Your task to perform on an android device: Open calendar and show me the first week of next month Image 0: 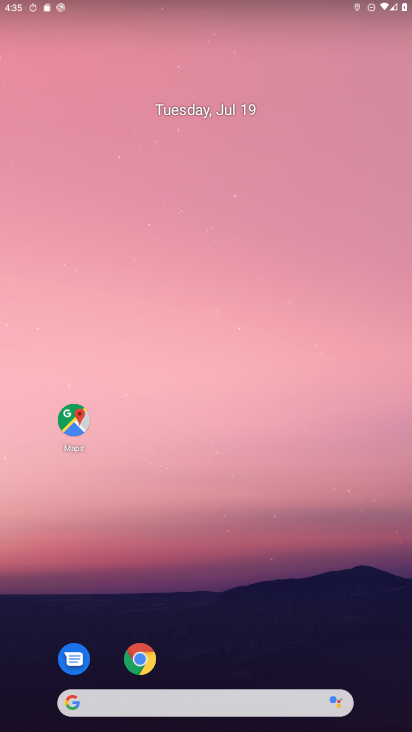
Step 0: drag from (236, 624) to (337, 40)
Your task to perform on an android device: Open calendar and show me the first week of next month Image 1: 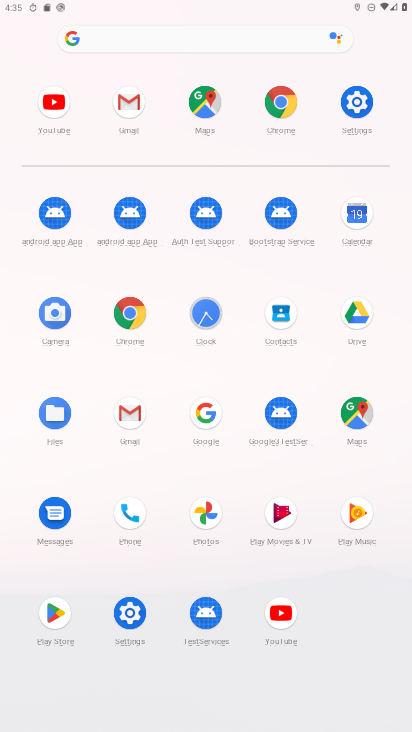
Step 1: click (358, 222)
Your task to perform on an android device: Open calendar and show me the first week of next month Image 2: 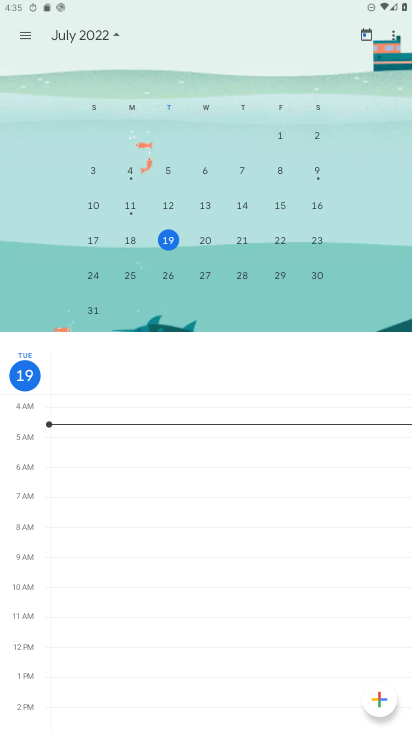
Step 2: drag from (319, 201) to (2, 132)
Your task to perform on an android device: Open calendar and show me the first week of next month Image 3: 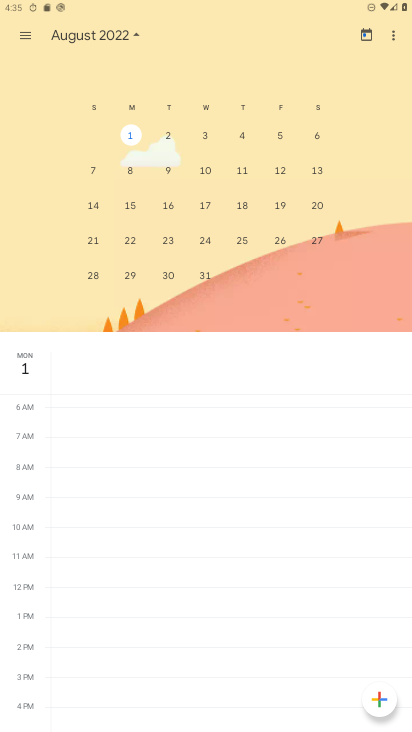
Step 3: click (97, 167)
Your task to perform on an android device: Open calendar and show me the first week of next month Image 4: 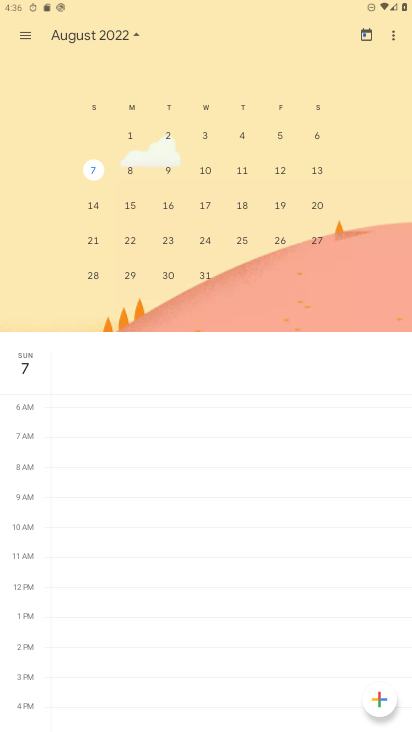
Step 4: task complete